Your task to perform on an android device: snooze an email in the gmail app Image 0: 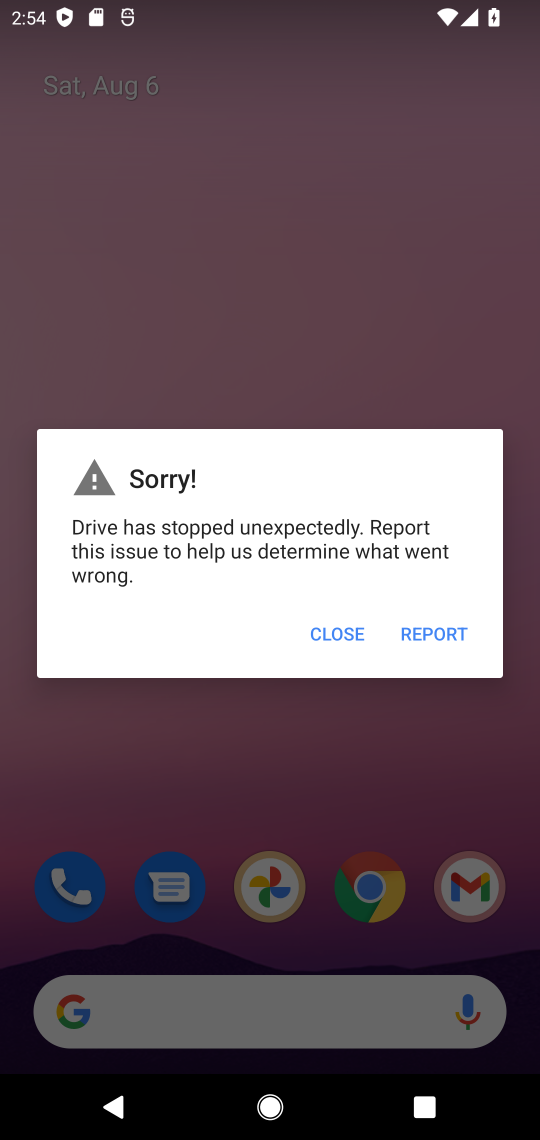
Step 0: press home button
Your task to perform on an android device: snooze an email in the gmail app Image 1: 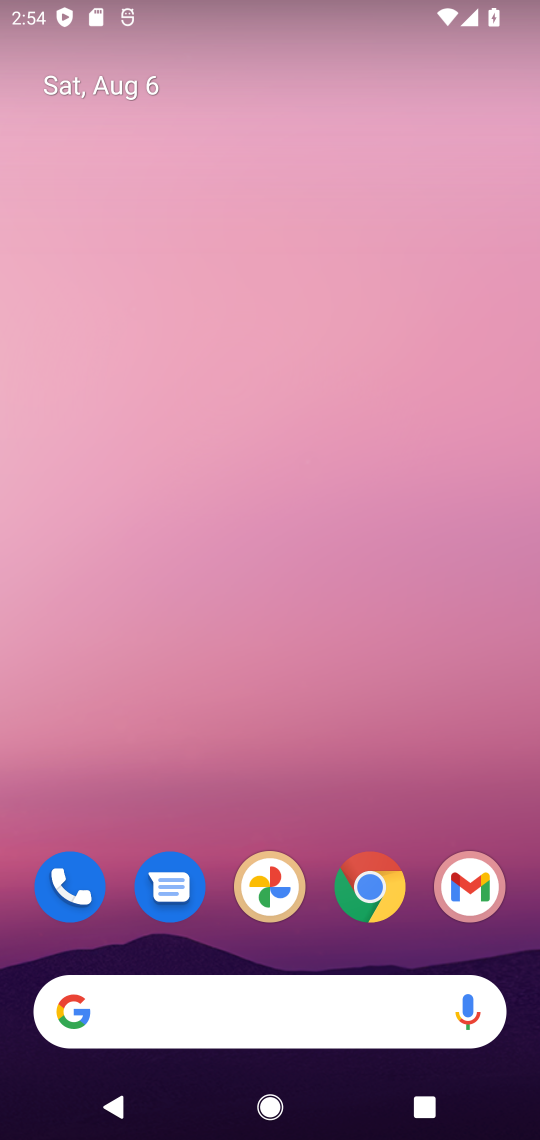
Step 1: drag from (319, 789) to (322, 290)
Your task to perform on an android device: snooze an email in the gmail app Image 2: 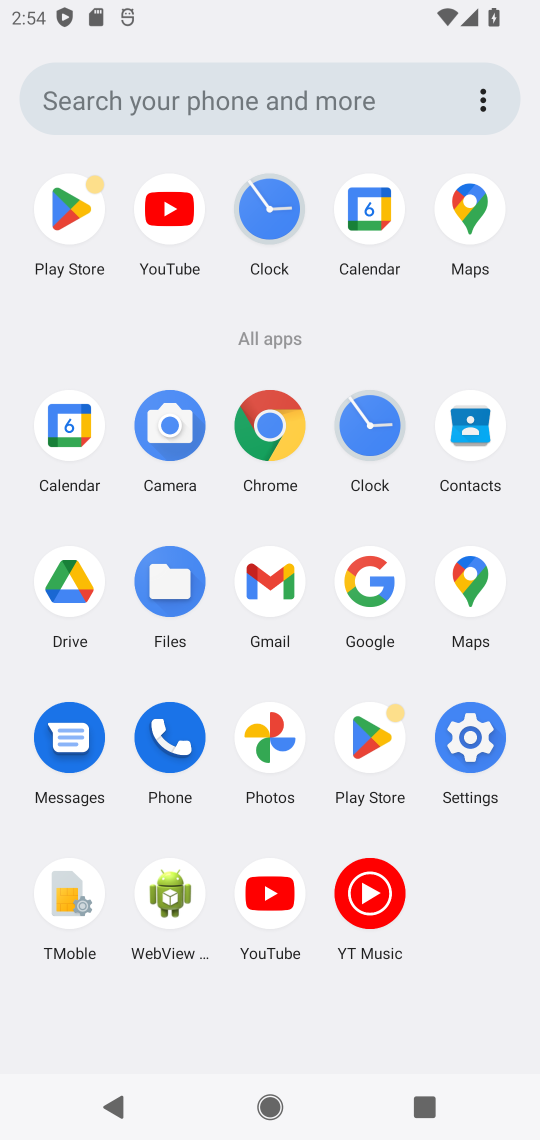
Step 2: click (257, 579)
Your task to perform on an android device: snooze an email in the gmail app Image 3: 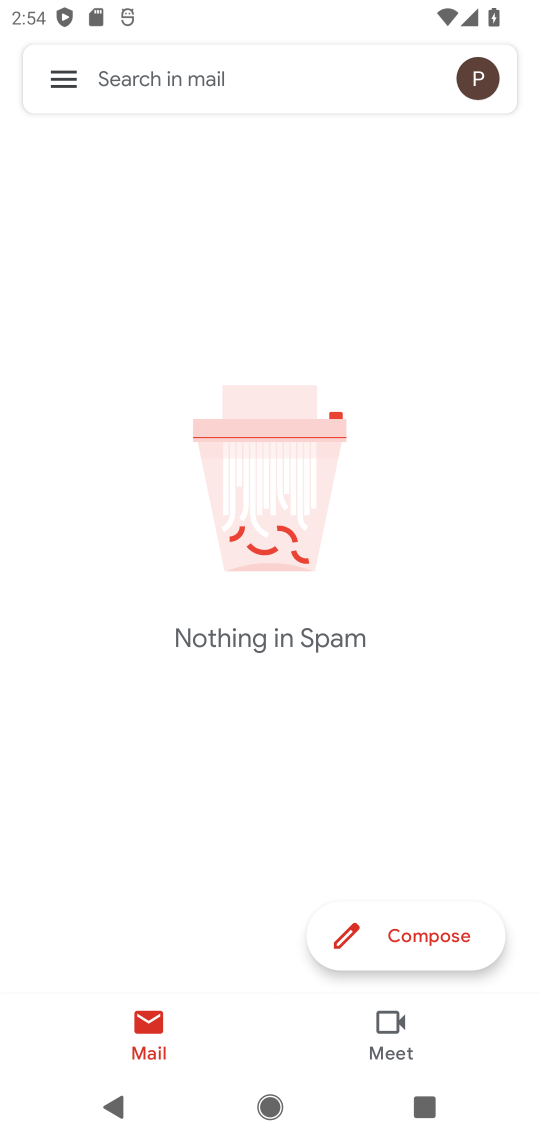
Step 3: click (62, 75)
Your task to perform on an android device: snooze an email in the gmail app Image 4: 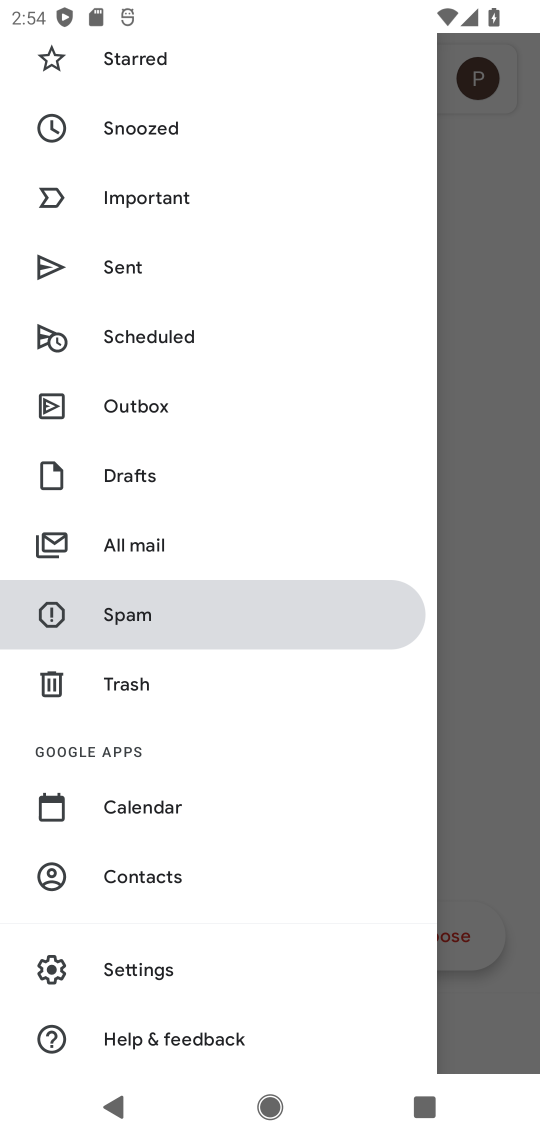
Step 4: click (193, 121)
Your task to perform on an android device: snooze an email in the gmail app Image 5: 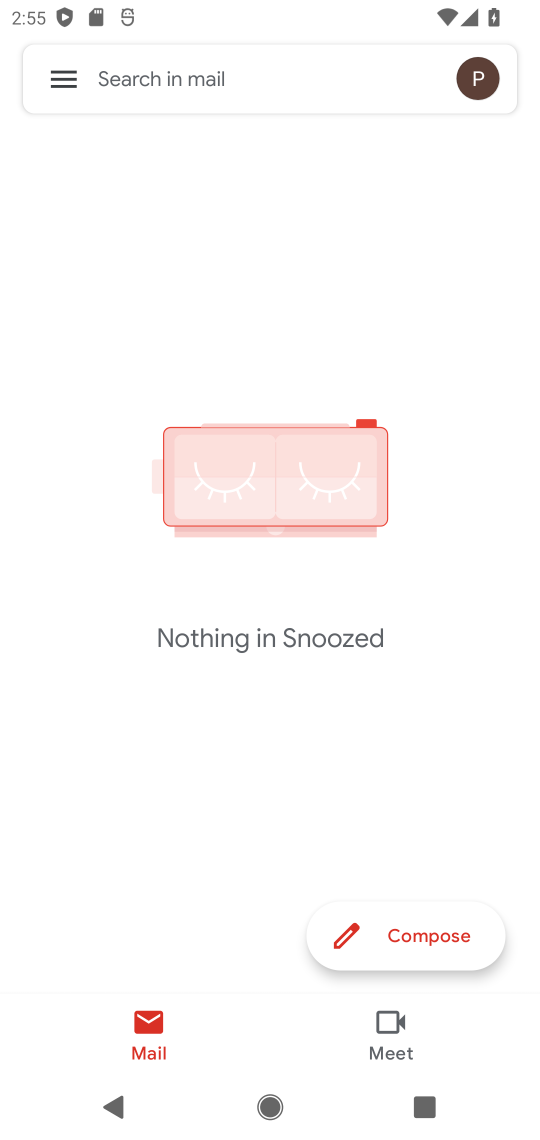
Step 5: task complete